Your task to perform on an android device: toggle notifications settings in the gmail app Image 0: 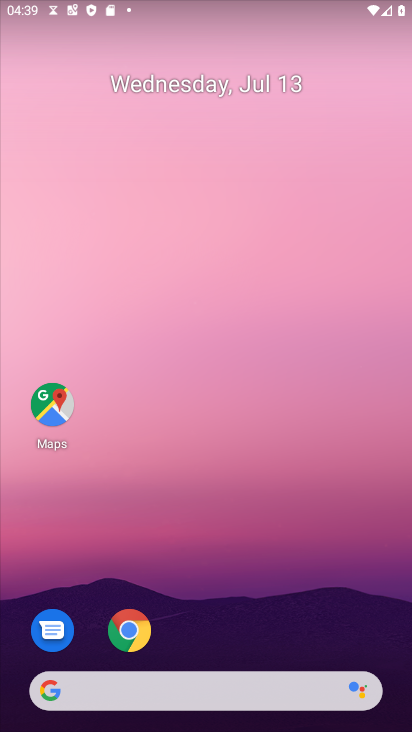
Step 0: drag from (276, 690) to (258, 0)
Your task to perform on an android device: toggle notifications settings in the gmail app Image 1: 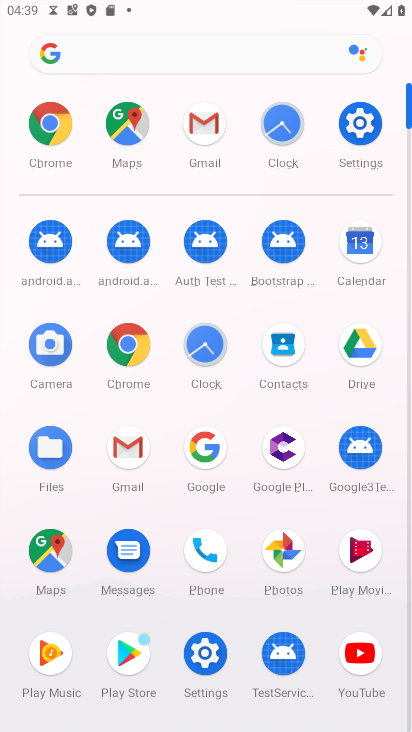
Step 1: click (129, 439)
Your task to perform on an android device: toggle notifications settings in the gmail app Image 2: 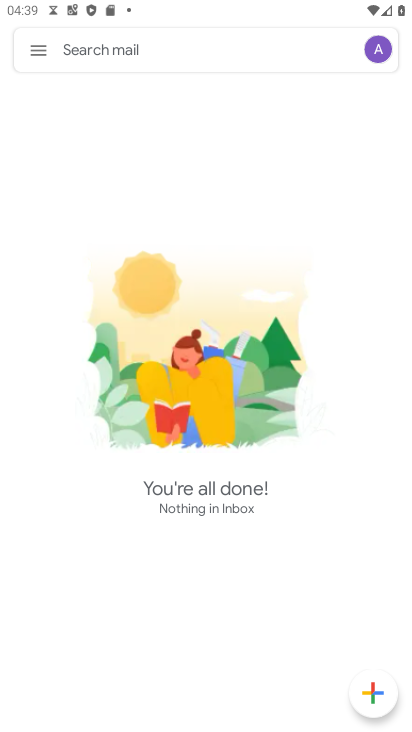
Step 2: click (57, 60)
Your task to perform on an android device: toggle notifications settings in the gmail app Image 3: 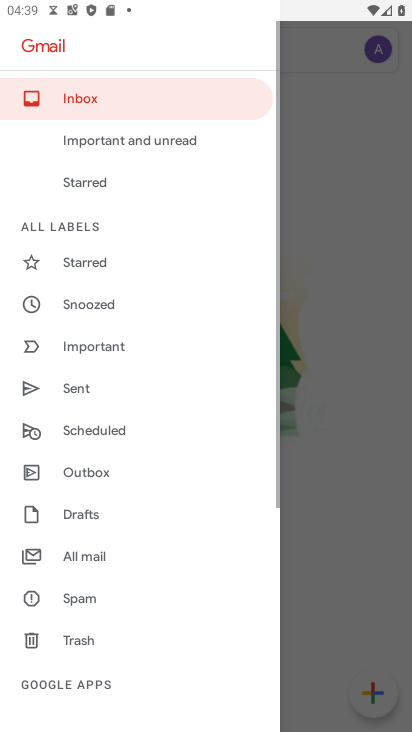
Step 3: drag from (100, 643) to (161, 228)
Your task to perform on an android device: toggle notifications settings in the gmail app Image 4: 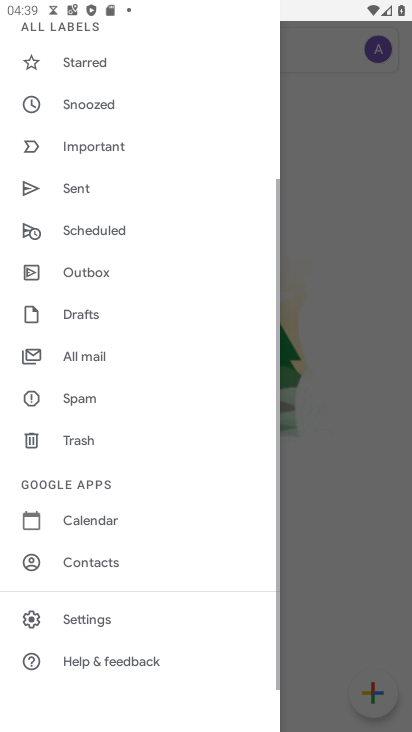
Step 4: click (114, 626)
Your task to perform on an android device: toggle notifications settings in the gmail app Image 5: 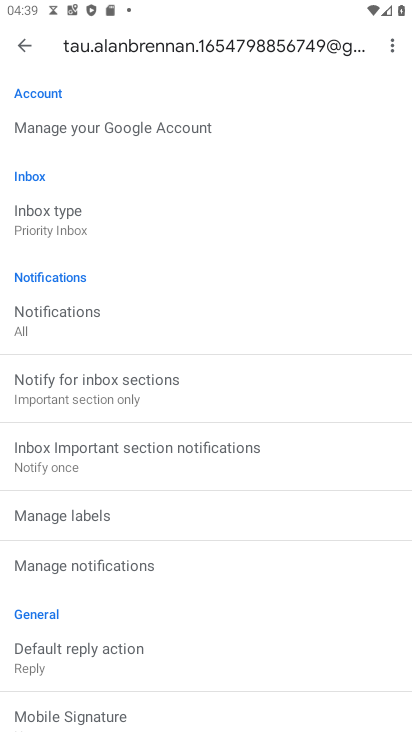
Step 5: click (106, 561)
Your task to perform on an android device: toggle notifications settings in the gmail app Image 6: 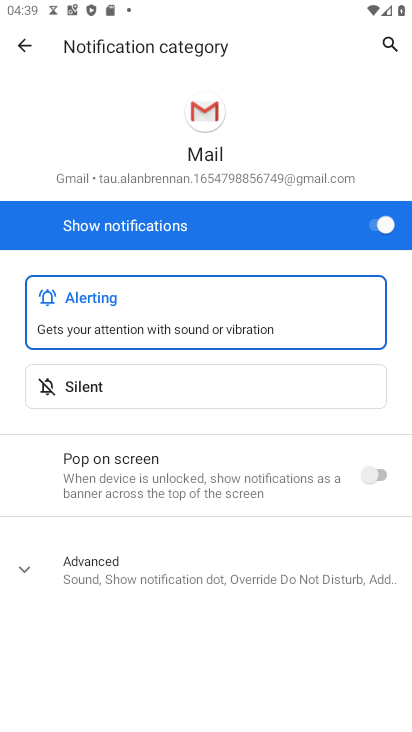
Step 6: click (381, 223)
Your task to perform on an android device: toggle notifications settings in the gmail app Image 7: 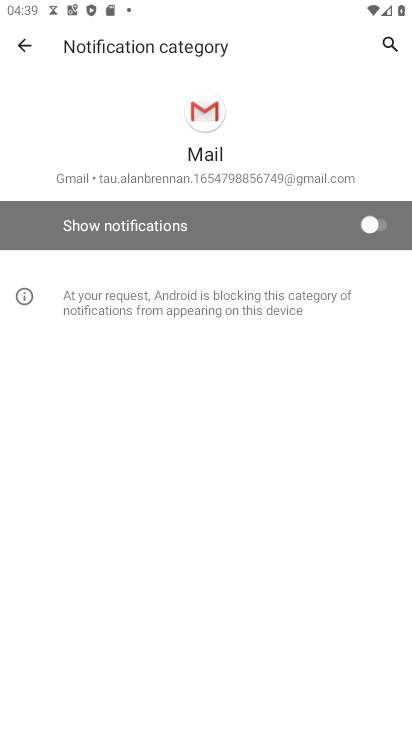
Step 7: task complete